Your task to perform on an android device: turn on airplane mode Image 0: 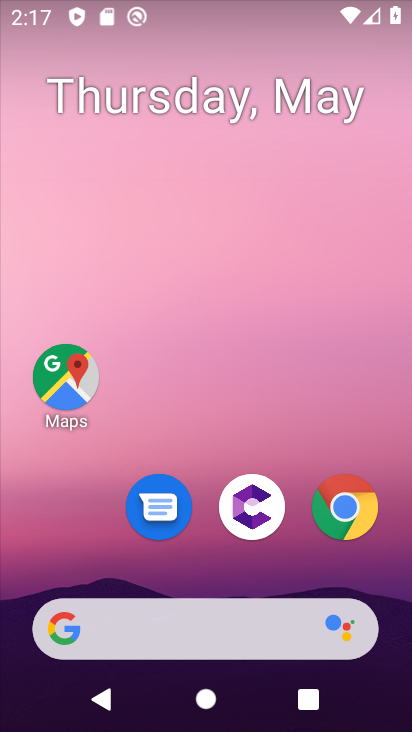
Step 0: press home button
Your task to perform on an android device: turn on airplane mode Image 1: 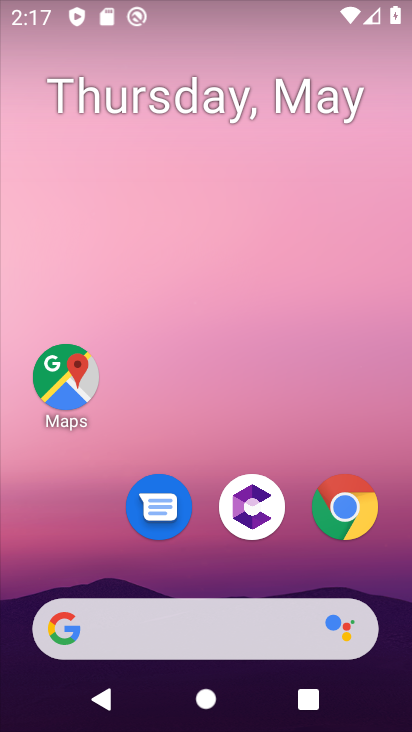
Step 1: drag from (210, 12) to (235, 651)
Your task to perform on an android device: turn on airplane mode Image 2: 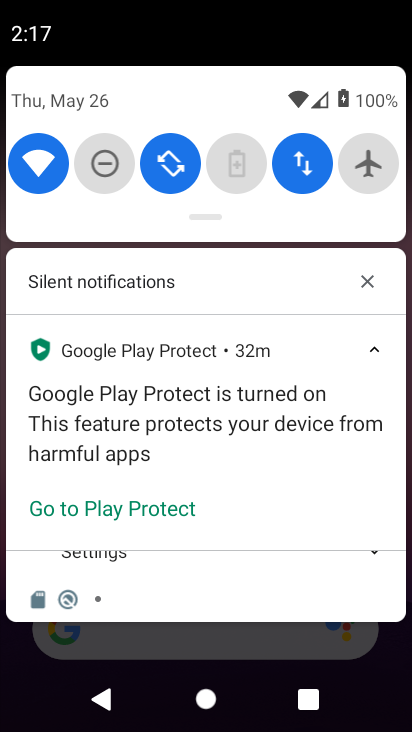
Step 2: click (376, 165)
Your task to perform on an android device: turn on airplane mode Image 3: 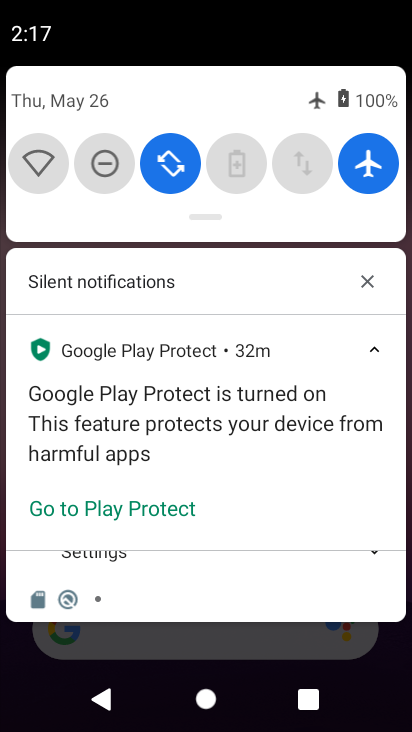
Step 3: task complete